Your task to perform on an android device: turn off notifications in google photos Image 0: 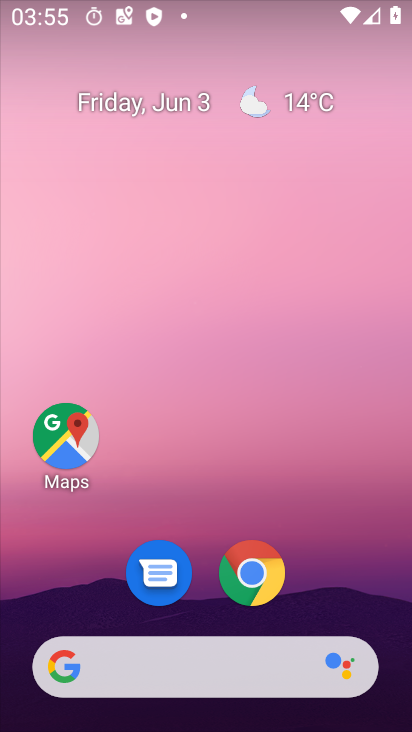
Step 0: drag from (327, 700) to (258, 1)
Your task to perform on an android device: turn off notifications in google photos Image 1: 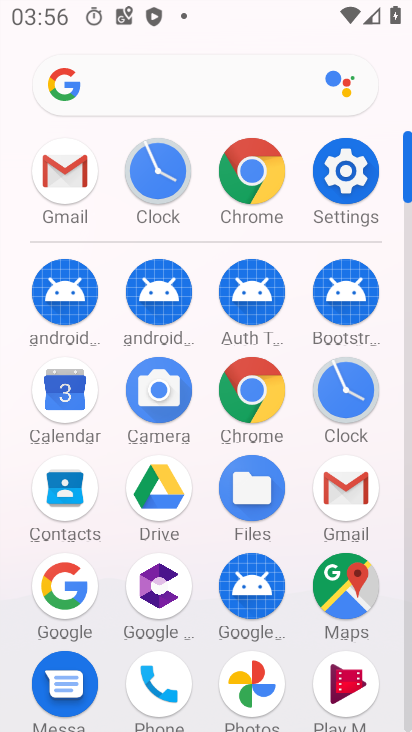
Step 1: click (242, 695)
Your task to perform on an android device: turn off notifications in google photos Image 2: 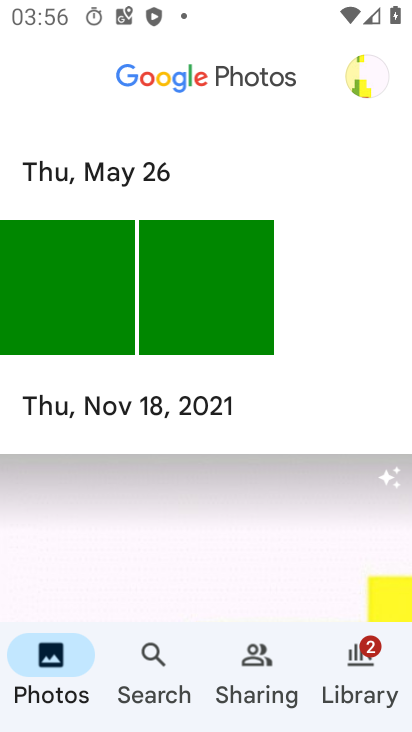
Step 2: click (370, 83)
Your task to perform on an android device: turn off notifications in google photos Image 3: 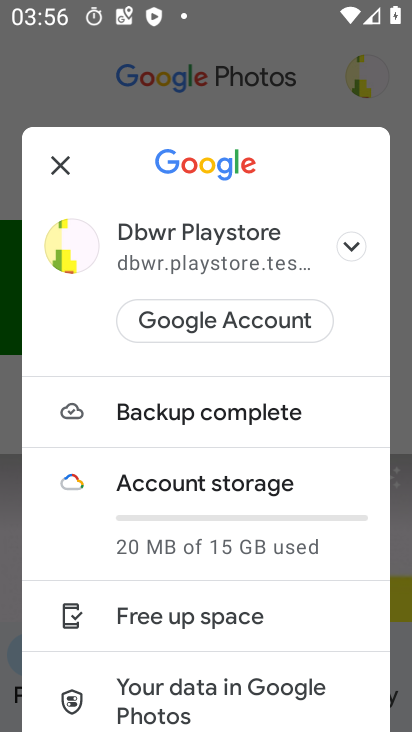
Step 3: drag from (247, 616) to (287, 141)
Your task to perform on an android device: turn off notifications in google photos Image 4: 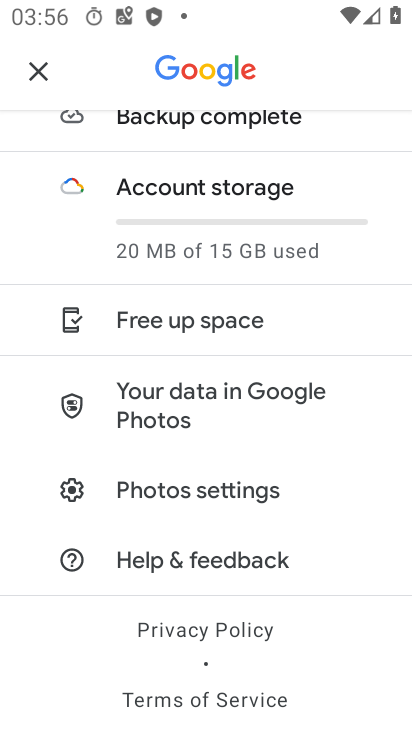
Step 4: click (217, 499)
Your task to perform on an android device: turn off notifications in google photos Image 5: 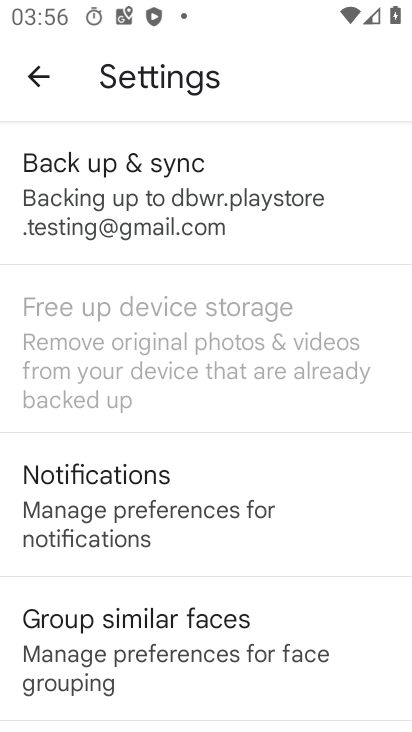
Step 5: click (221, 510)
Your task to perform on an android device: turn off notifications in google photos Image 6: 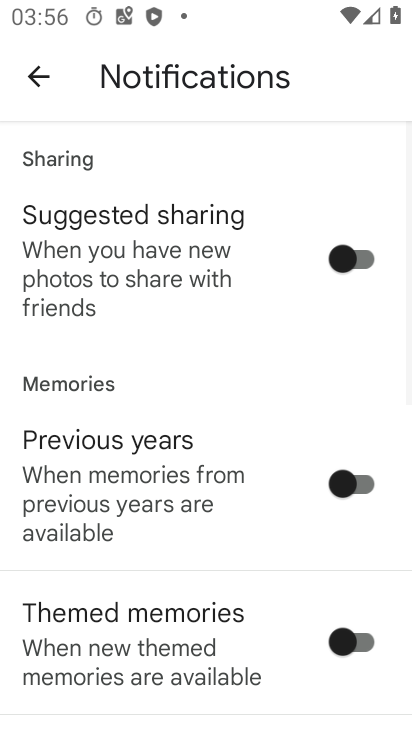
Step 6: drag from (245, 678) to (276, 144)
Your task to perform on an android device: turn off notifications in google photos Image 7: 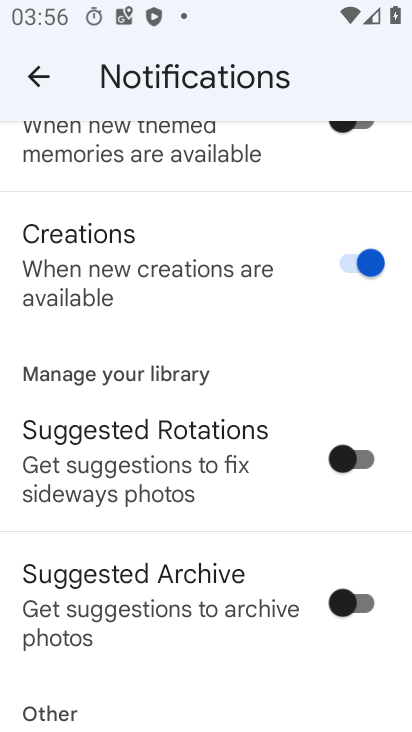
Step 7: drag from (248, 708) to (242, 182)
Your task to perform on an android device: turn off notifications in google photos Image 8: 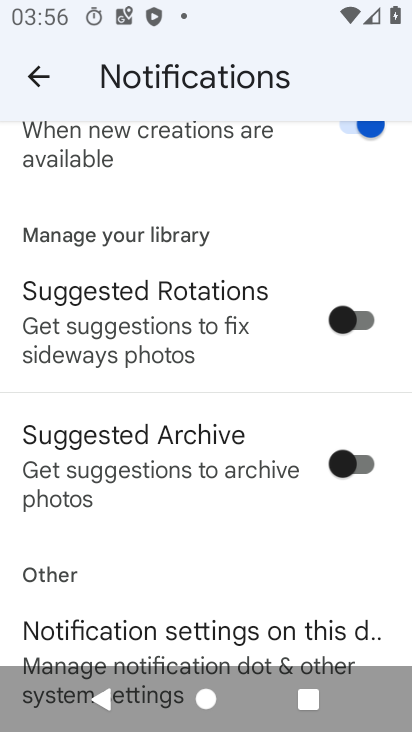
Step 8: click (233, 643)
Your task to perform on an android device: turn off notifications in google photos Image 9: 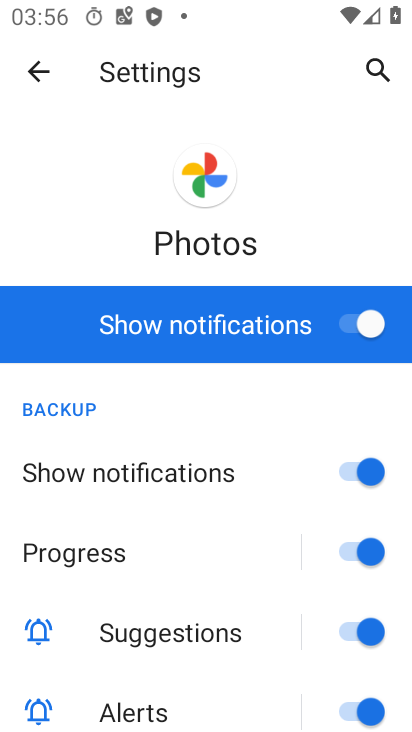
Step 9: click (372, 325)
Your task to perform on an android device: turn off notifications in google photos Image 10: 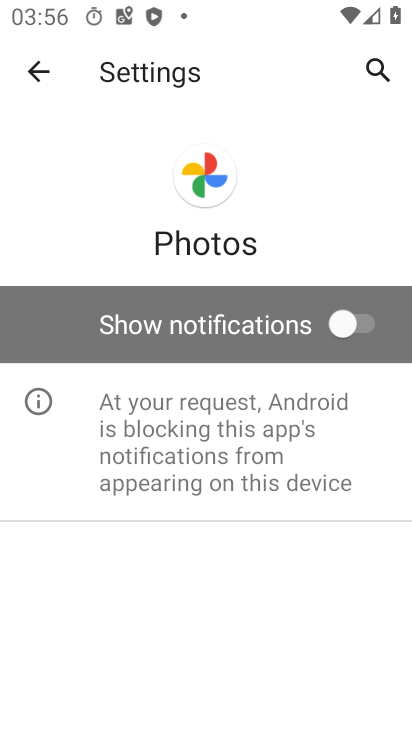
Step 10: task complete